Your task to perform on an android device: Open settings Image 0: 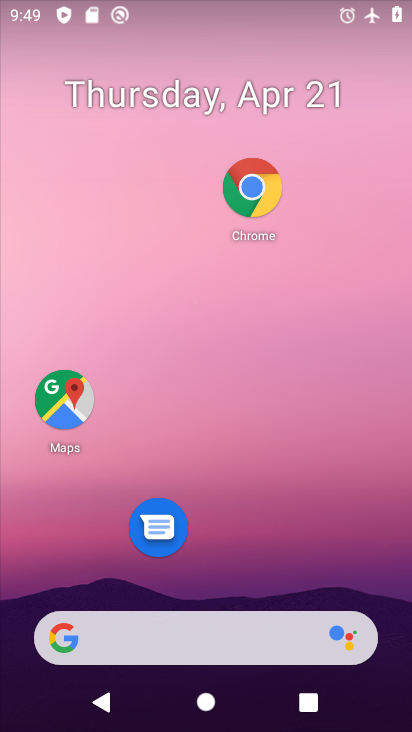
Step 0: drag from (256, 584) to (265, 154)
Your task to perform on an android device: Open settings Image 1: 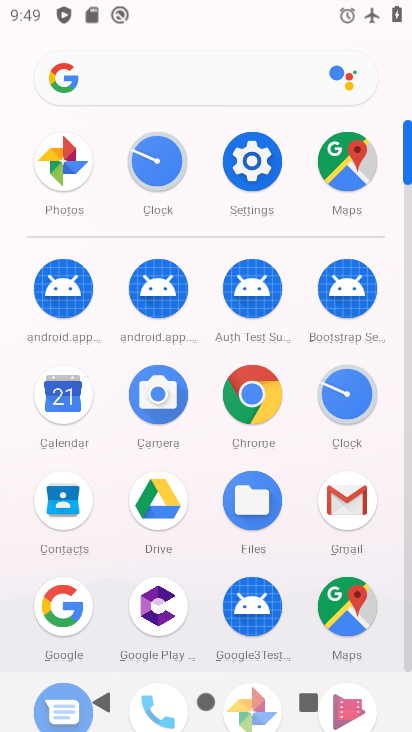
Step 1: click (257, 181)
Your task to perform on an android device: Open settings Image 2: 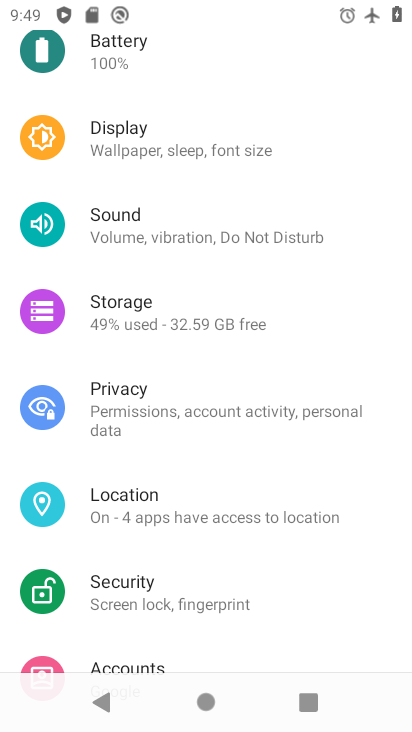
Step 2: task complete